Your task to perform on an android device: What's the weather going to be this weekend? Image 0: 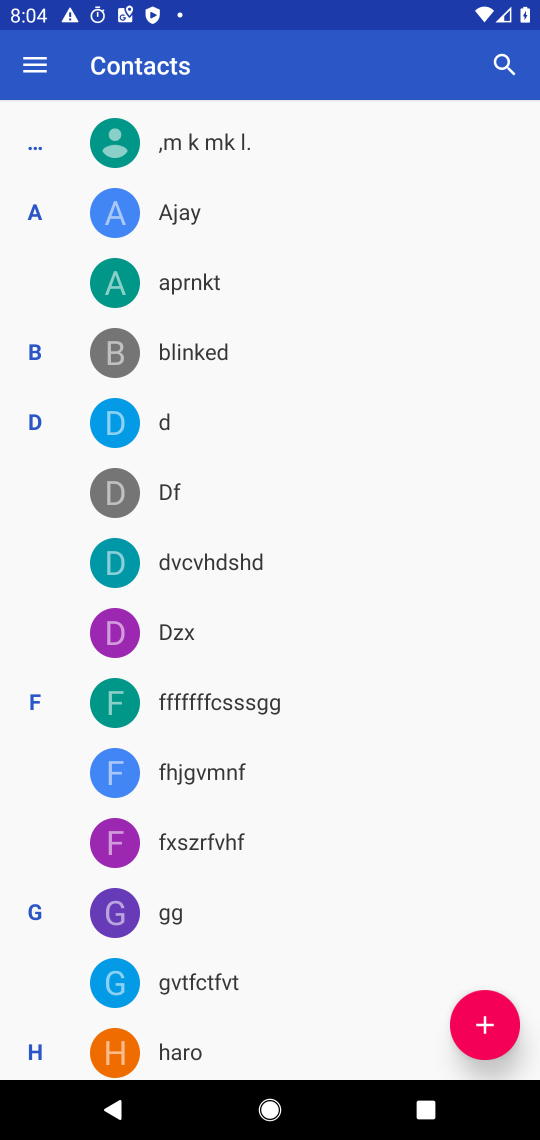
Step 0: press home button
Your task to perform on an android device: What's the weather going to be this weekend? Image 1: 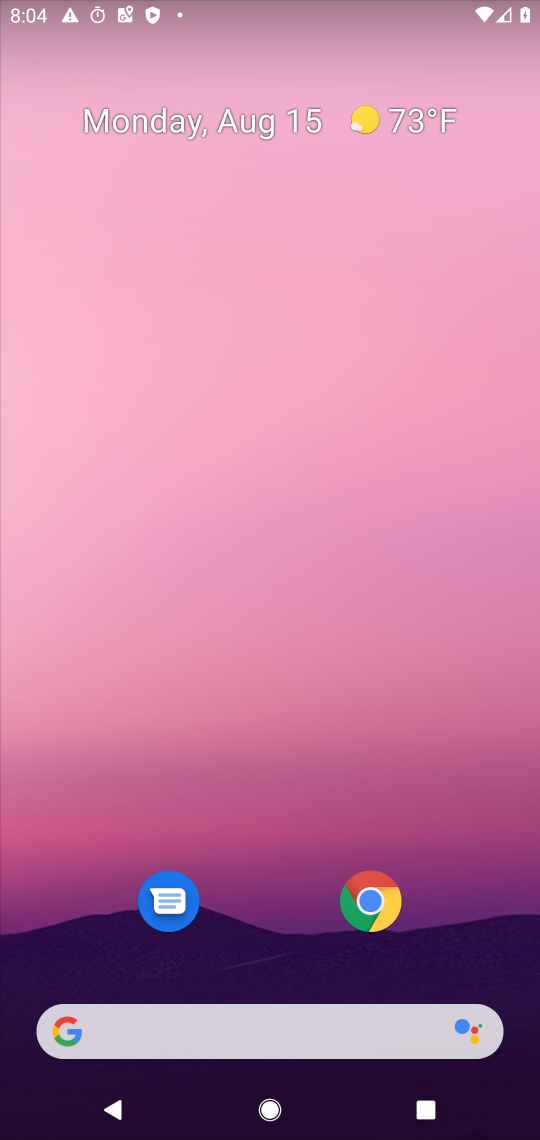
Step 1: click (218, 1029)
Your task to perform on an android device: What's the weather going to be this weekend? Image 2: 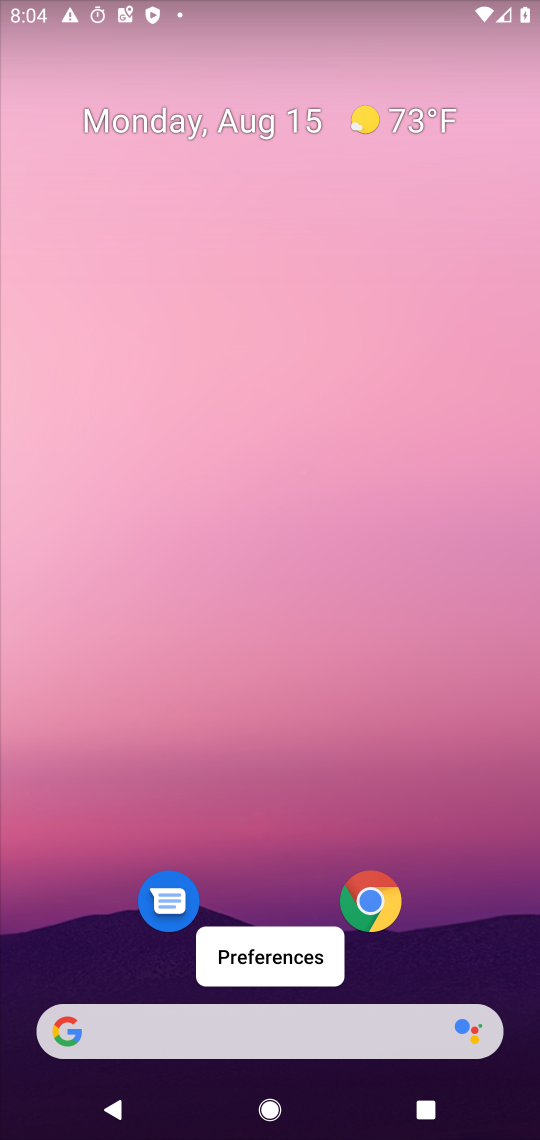
Step 2: click (218, 1029)
Your task to perform on an android device: What's the weather going to be this weekend? Image 3: 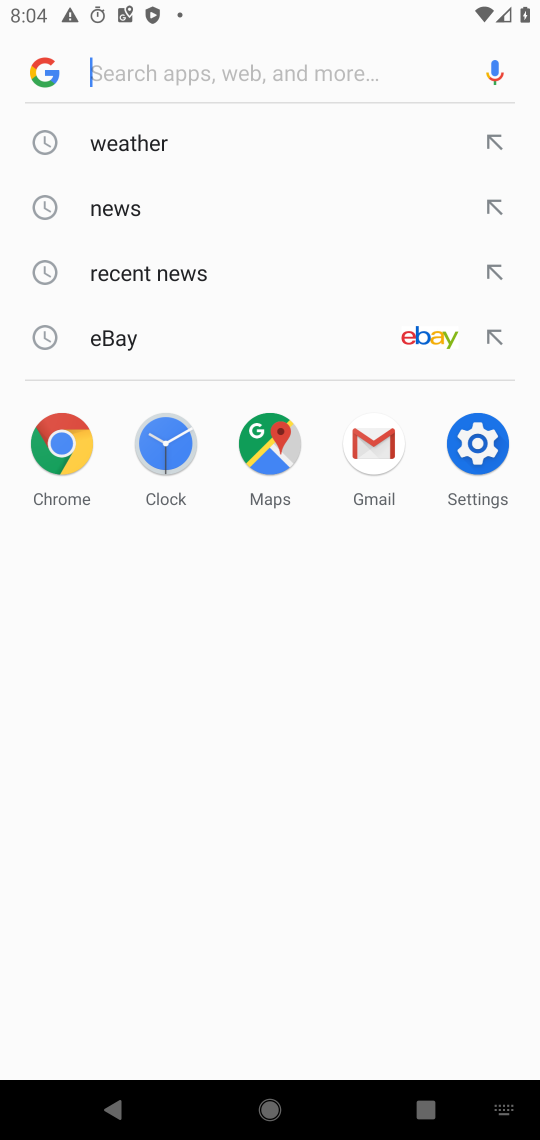
Step 3: click (155, 145)
Your task to perform on an android device: What's the weather going to be this weekend? Image 4: 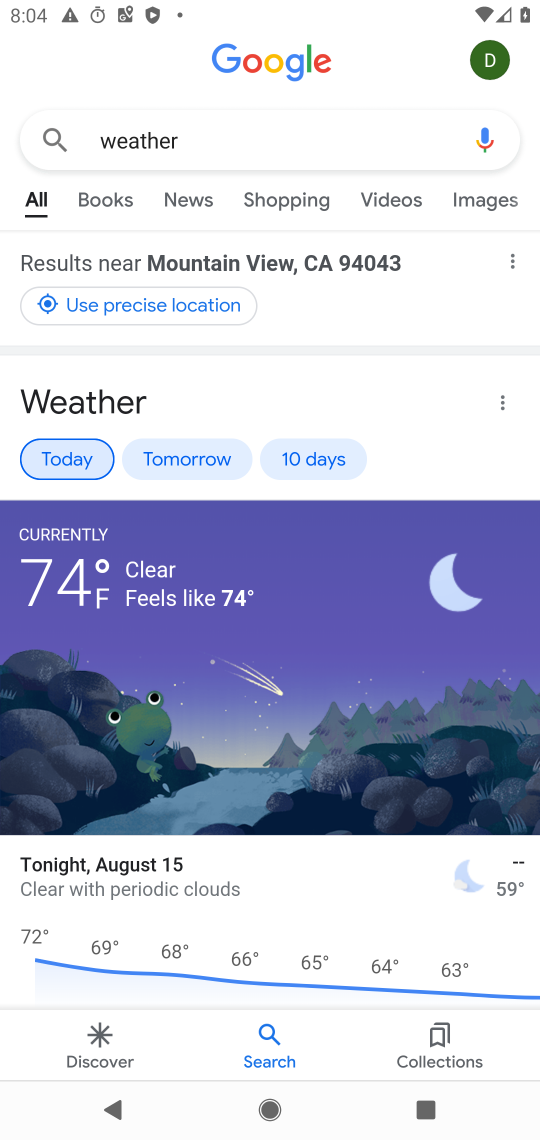
Step 4: click (318, 462)
Your task to perform on an android device: What's the weather going to be this weekend? Image 5: 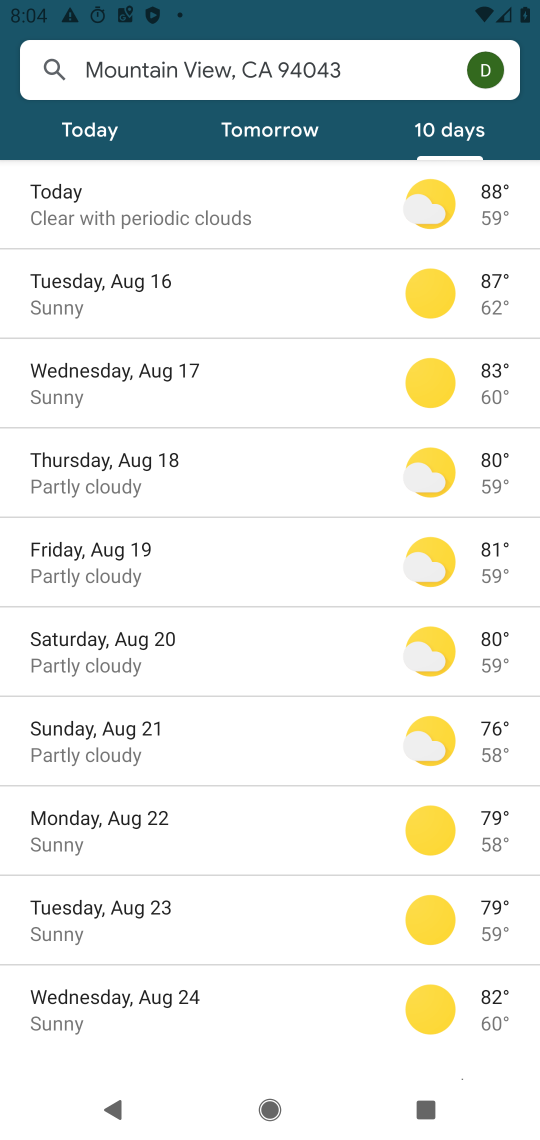
Step 5: task complete